Your task to perform on an android device: star an email in the gmail app Image 0: 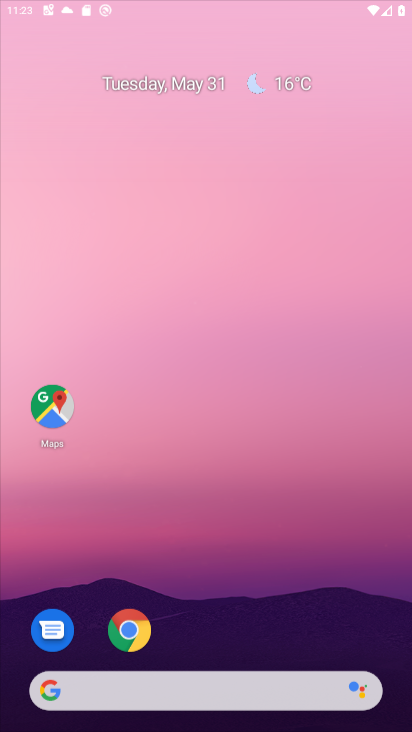
Step 0: drag from (210, 326) to (182, 68)
Your task to perform on an android device: star an email in the gmail app Image 1: 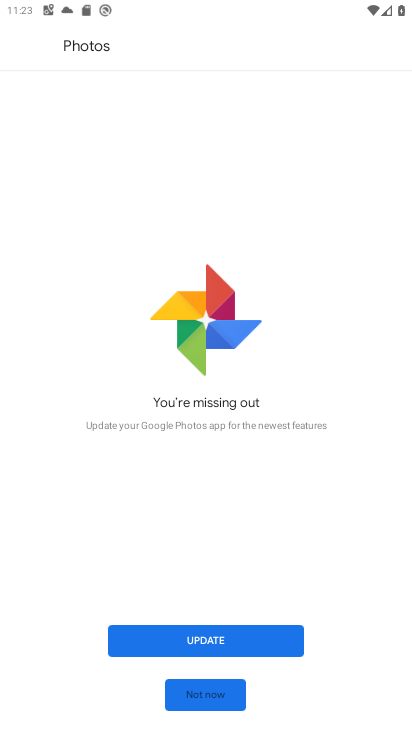
Step 1: press home button
Your task to perform on an android device: star an email in the gmail app Image 2: 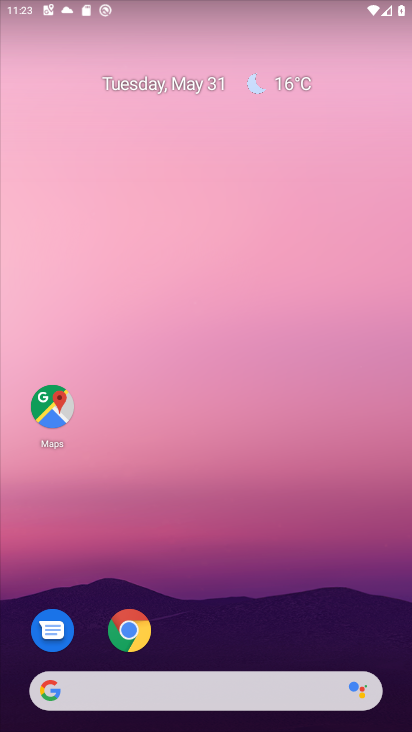
Step 2: drag from (255, 563) to (201, 204)
Your task to perform on an android device: star an email in the gmail app Image 3: 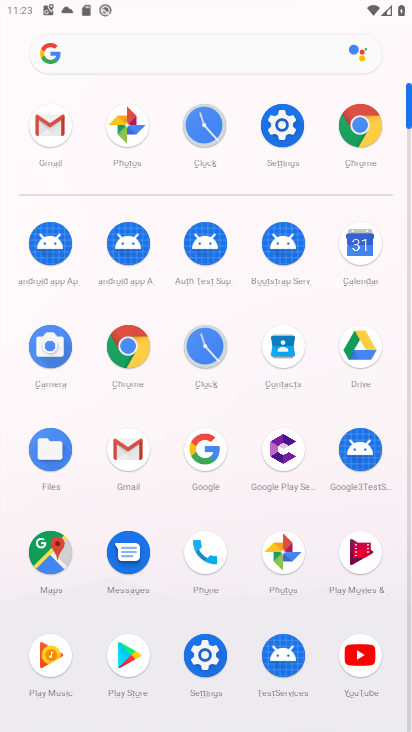
Step 3: click (56, 124)
Your task to perform on an android device: star an email in the gmail app Image 4: 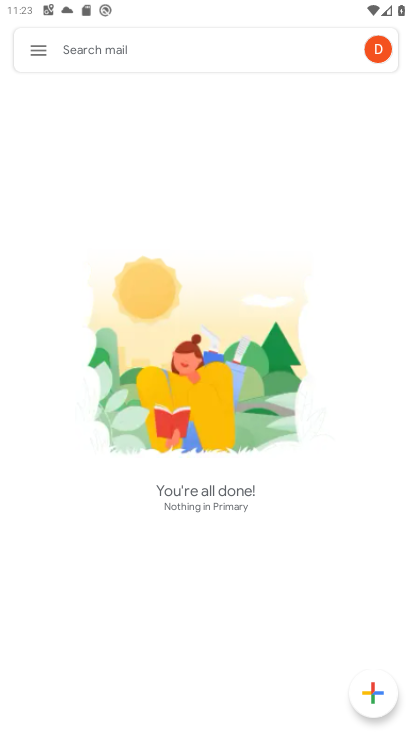
Step 4: click (29, 51)
Your task to perform on an android device: star an email in the gmail app Image 5: 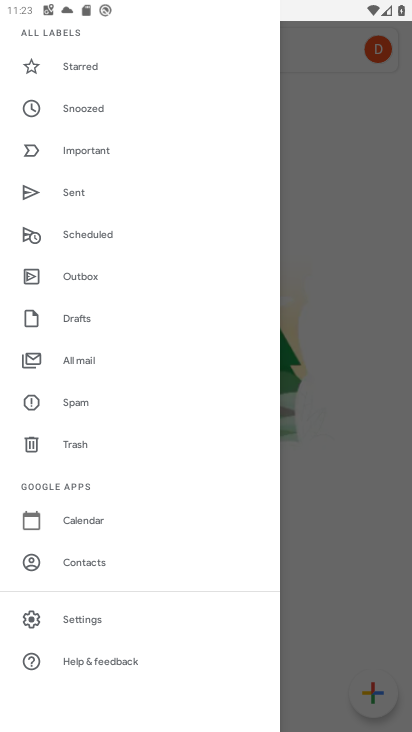
Step 5: drag from (189, 249) to (159, 649)
Your task to perform on an android device: star an email in the gmail app Image 6: 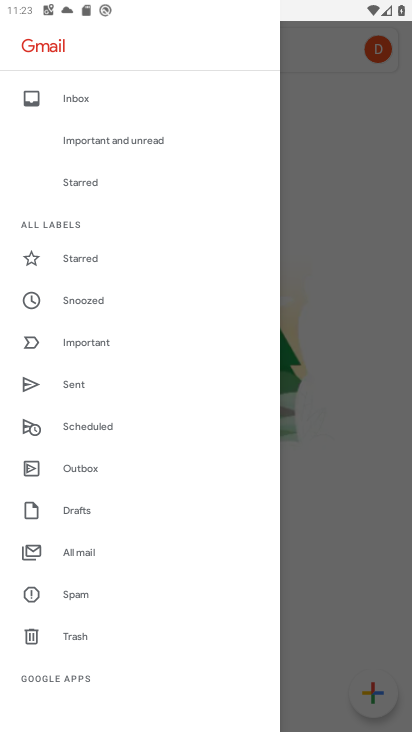
Step 6: drag from (89, 526) to (139, 262)
Your task to perform on an android device: star an email in the gmail app Image 7: 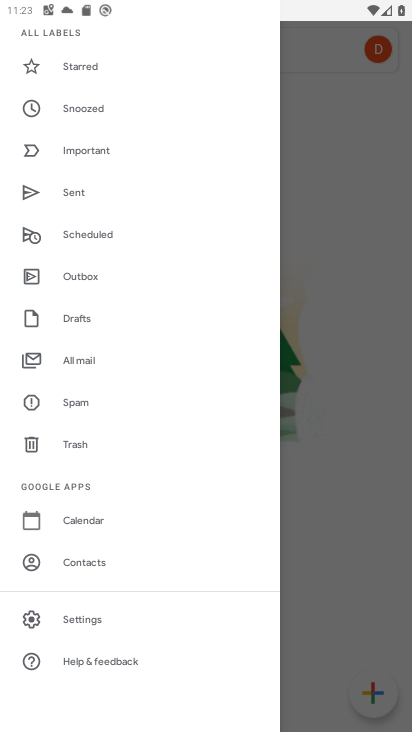
Step 7: click (83, 366)
Your task to perform on an android device: star an email in the gmail app Image 8: 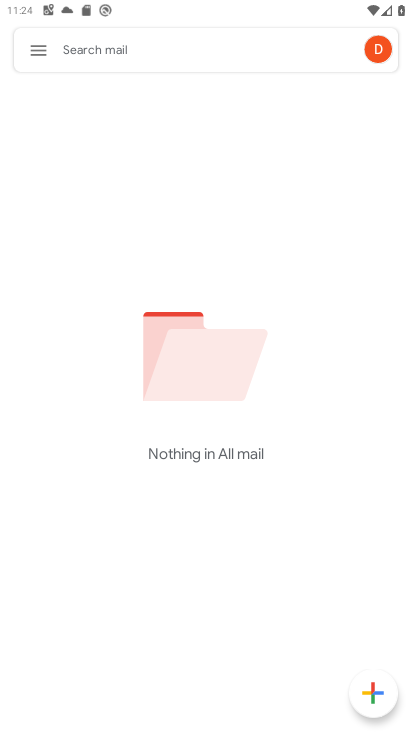
Step 8: task complete